Your task to perform on an android device: Go to Yahoo.com Image 0: 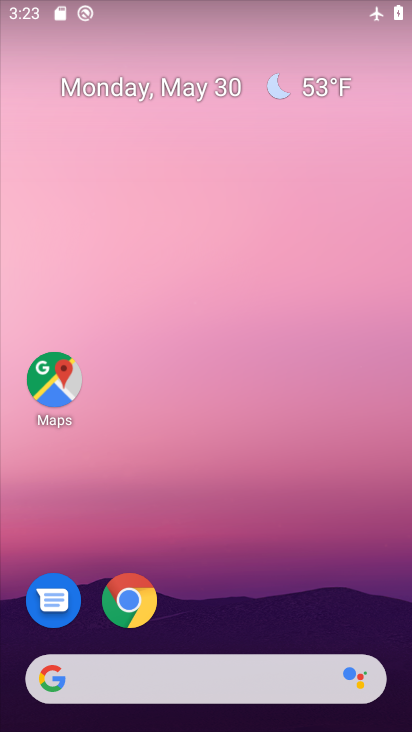
Step 0: drag from (255, 511) to (288, 58)
Your task to perform on an android device: Go to Yahoo.com Image 1: 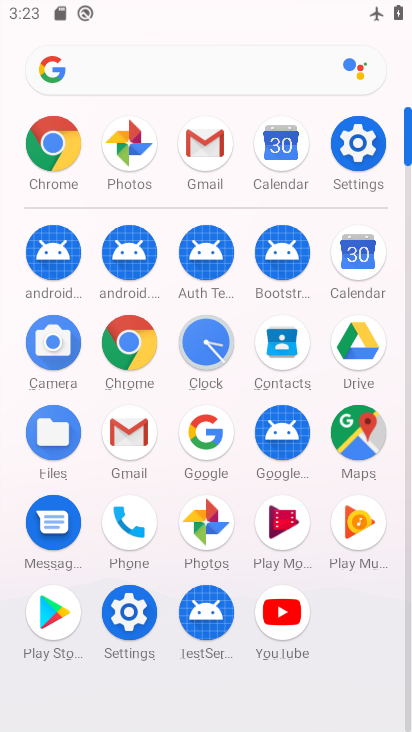
Step 1: click (60, 145)
Your task to perform on an android device: Go to Yahoo.com Image 2: 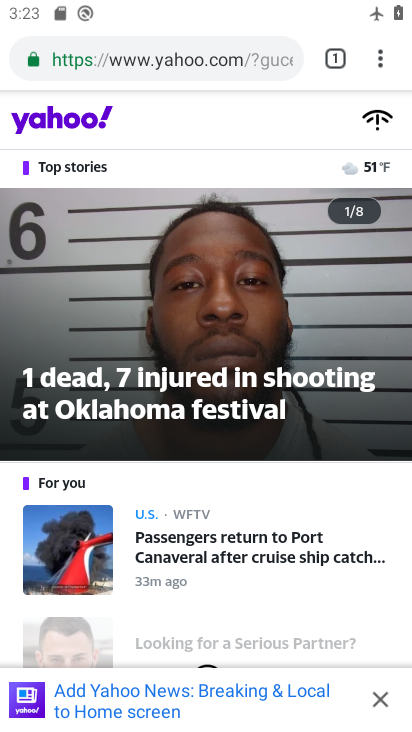
Step 2: task complete